Your task to perform on an android device: Open accessibility settings Image 0: 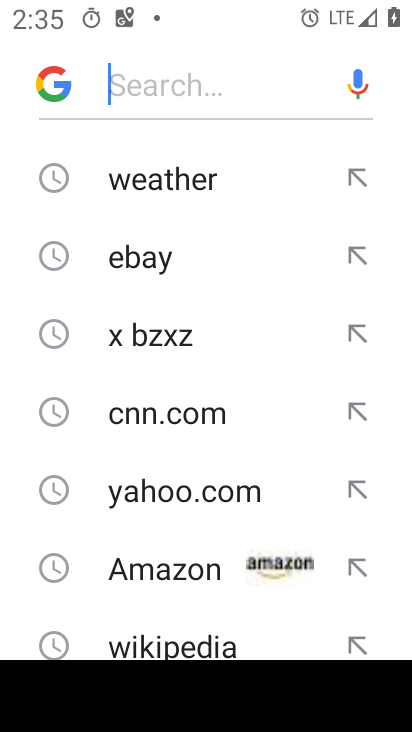
Step 0: press home button
Your task to perform on an android device: Open accessibility settings Image 1: 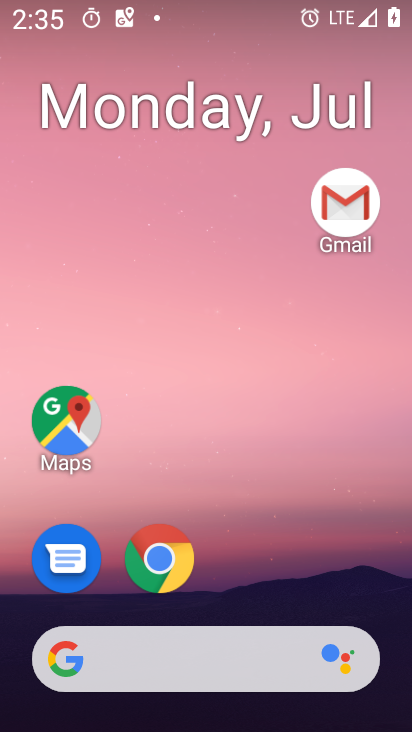
Step 1: drag from (347, 588) to (346, 75)
Your task to perform on an android device: Open accessibility settings Image 2: 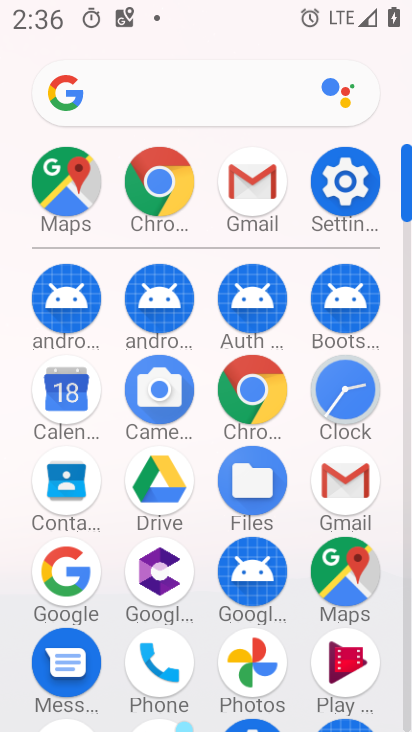
Step 2: click (347, 181)
Your task to perform on an android device: Open accessibility settings Image 3: 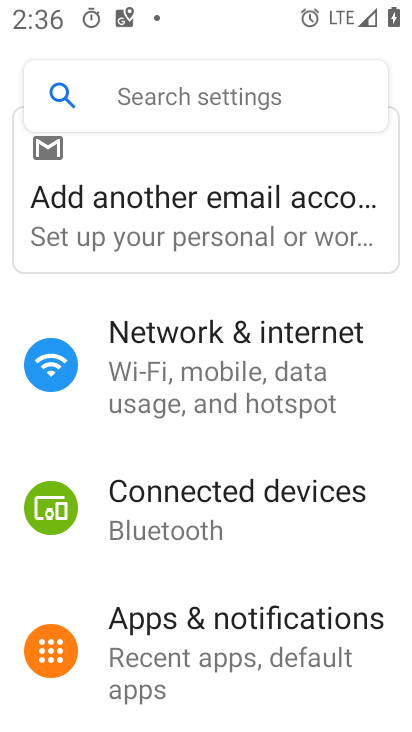
Step 3: drag from (374, 454) to (385, 336)
Your task to perform on an android device: Open accessibility settings Image 4: 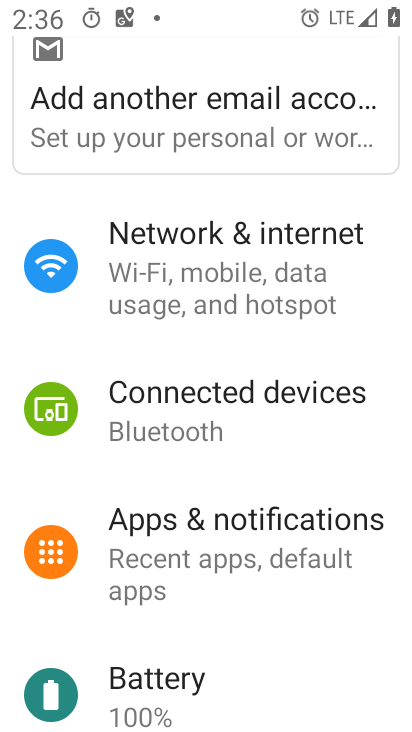
Step 4: drag from (361, 431) to (365, 332)
Your task to perform on an android device: Open accessibility settings Image 5: 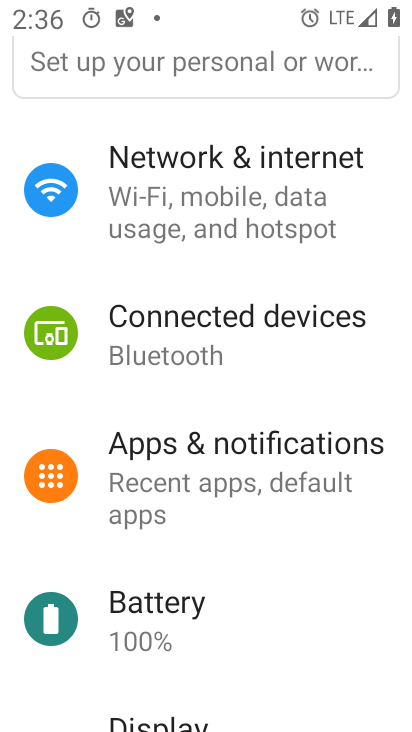
Step 5: drag from (373, 498) to (383, 380)
Your task to perform on an android device: Open accessibility settings Image 6: 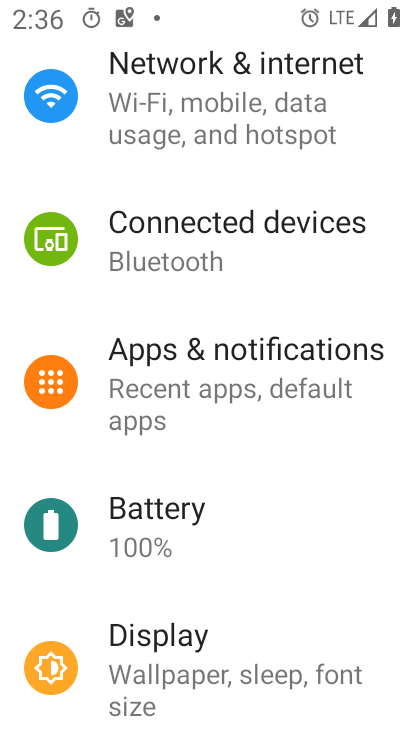
Step 6: drag from (344, 487) to (354, 366)
Your task to perform on an android device: Open accessibility settings Image 7: 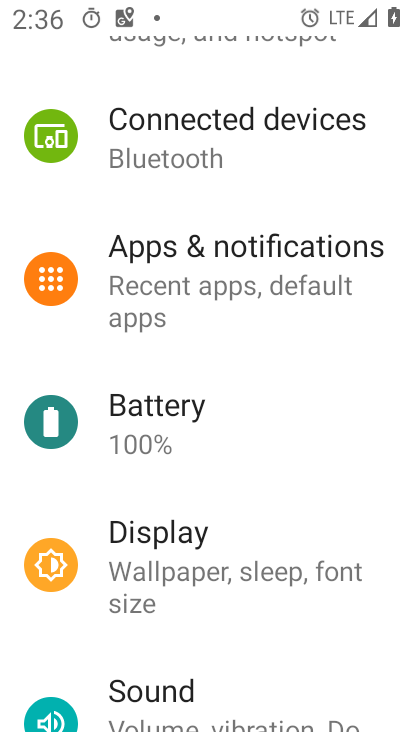
Step 7: drag from (364, 505) to (363, 355)
Your task to perform on an android device: Open accessibility settings Image 8: 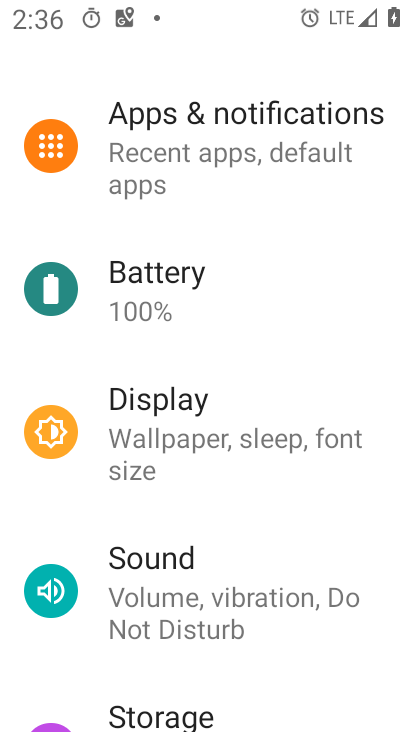
Step 8: drag from (361, 516) to (362, 386)
Your task to perform on an android device: Open accessibility settings Image 9: 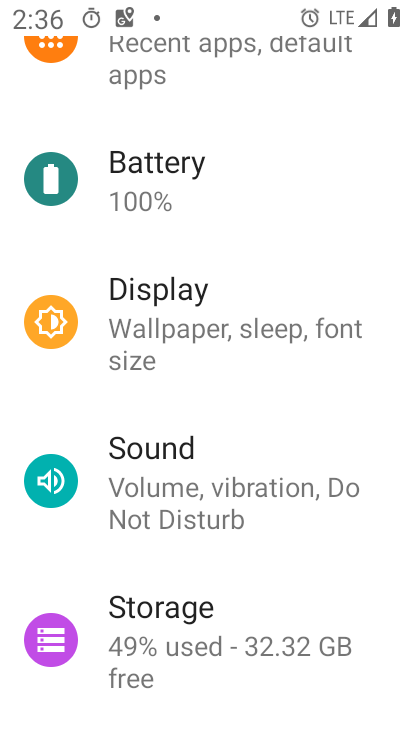
Step 9: drag from (354, 605) to (354, 490)
Your task to perform on an android device: Open accessibility settings Image 10: 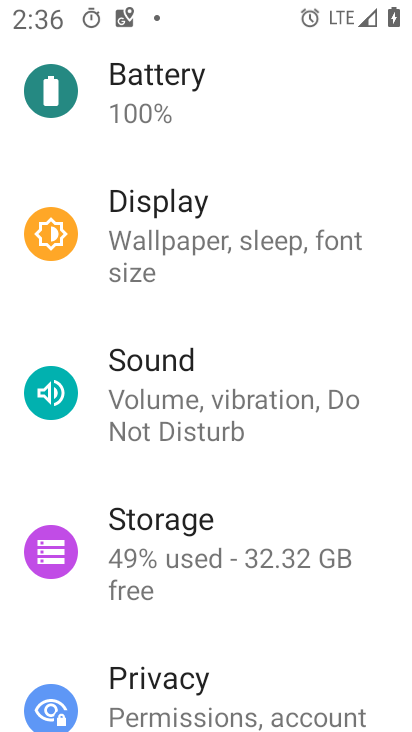
Step 10: drag from (360, 589) to (360, 457)
Your task to perform on an android device: Open accessibility settings Image 11: 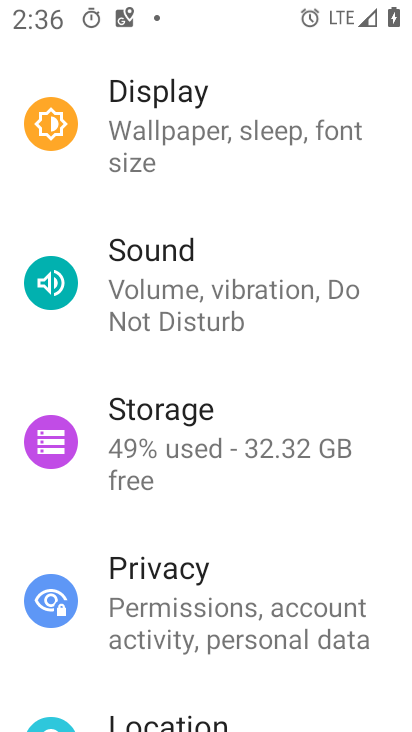
Step 11: drag from (362, 518) to (363, 411)
Your task to perform on an android device: Open accessibility settings Image 12: 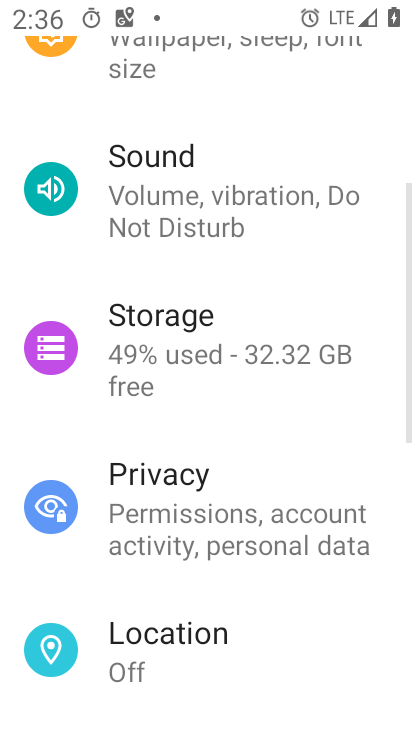
Step 12: drag from (370, 581) to (371, 455)
Your task to perform on an android device: Open accessibility settings Image 13: 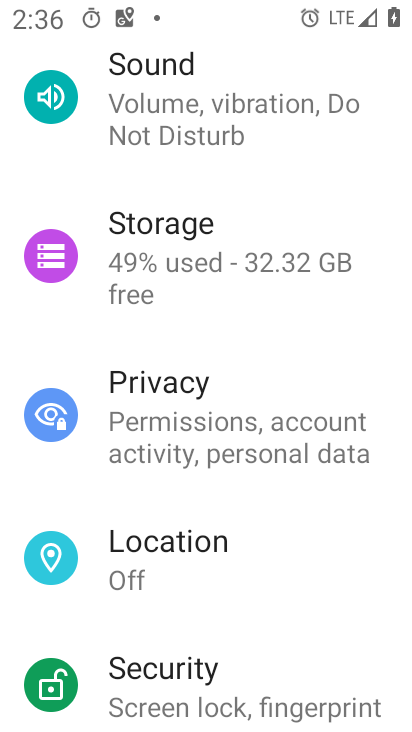
Step 13: drag from (355, 563) to (352, 455)
Your task to perform on an android device: Open accessibility settings Image 14: 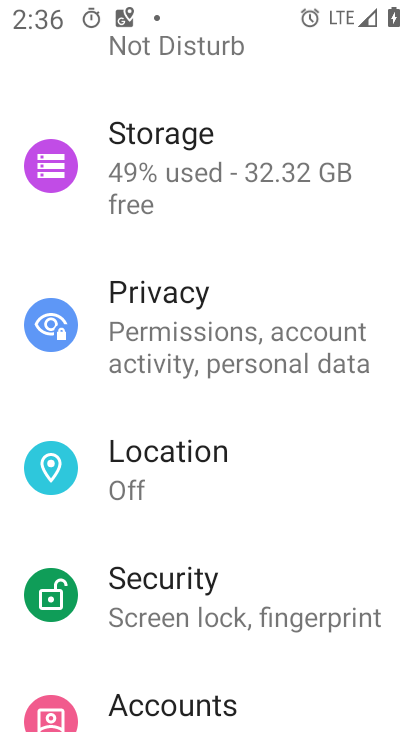
Step 14: drag from (352, 568) to (352, 471)
Your task to perform on an android device: Open accessibility settings Image 15: 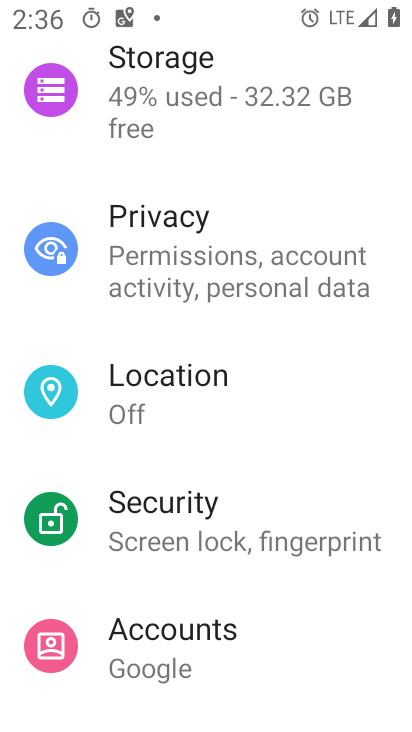
Step 15: drag from (327, 629) to (327, 435)
Your task to perform on an android device: Open accessibility settings Image 16: 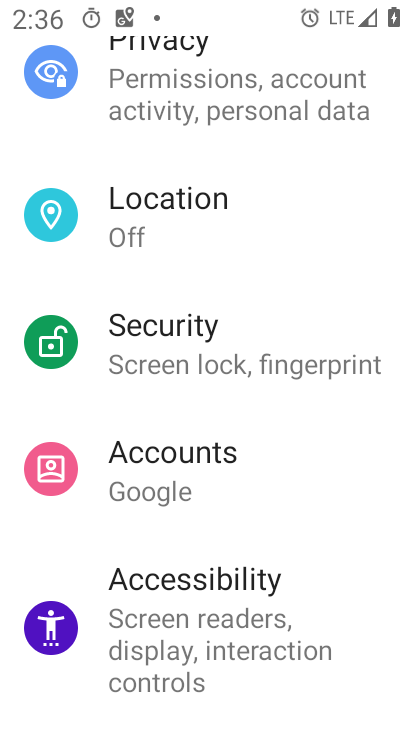
Step 16: drag from (344, 569) to (332, 428)
Your task to perform on an android device: Open accessibility settings Image 17: 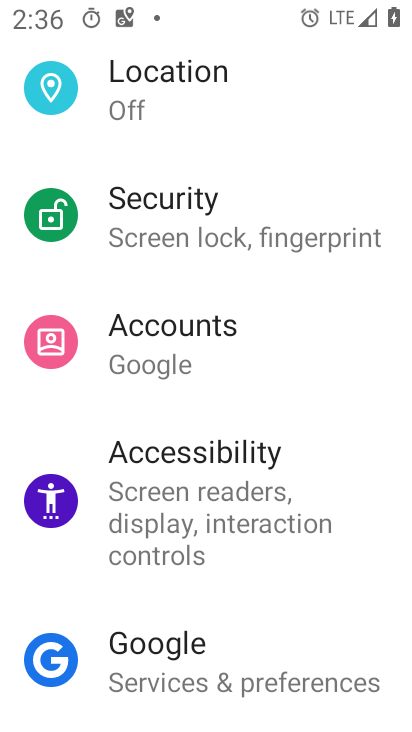
Step 17: click (321, 494)
Your task to perform on an android device: Open accessibility settings Image 18: 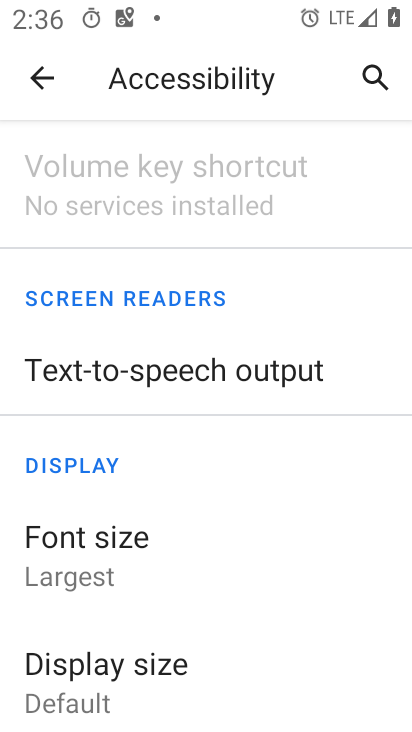
Step 18: task complete